Your task to perform on an android device: What's the weather? Image 0: 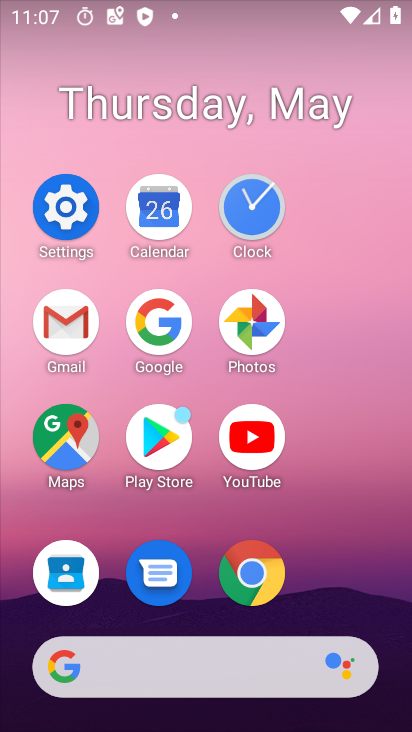
Step 0: click (177, 331)
Your task to perform on an android device: What's the weather? Image 1: 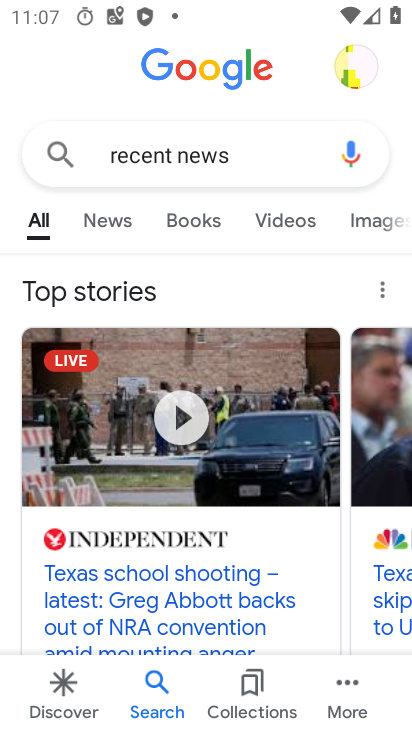
Step 1: click (188, 161)
Your task to perform on an android device: What's the weather? Image 2: 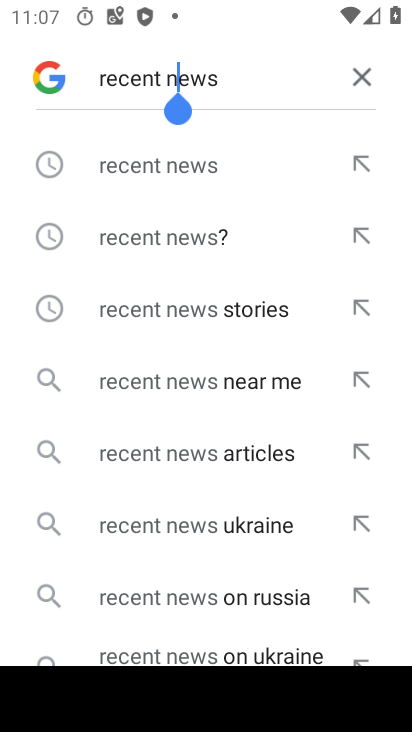
Step 2: click (357, 80)
Your task to perform on an android device: What's the weather? Image 3: 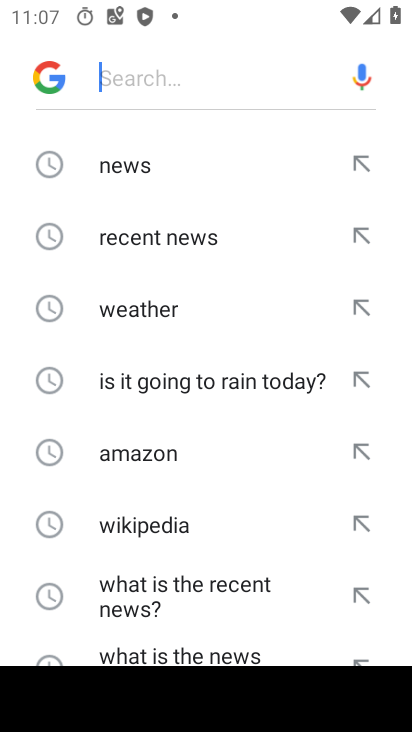
Step 3: click (154, 304)
Your task to perform on an android device: What's the weather? Image 4: 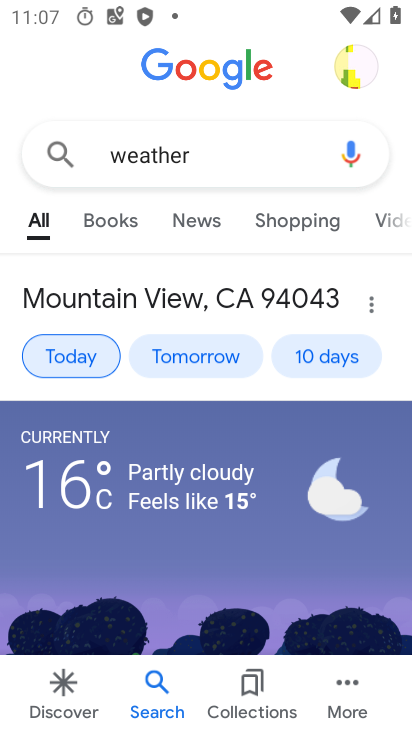
Step 4: task complete